Your task to perform on an android device: turn pop-ups off in chrome Image 0: 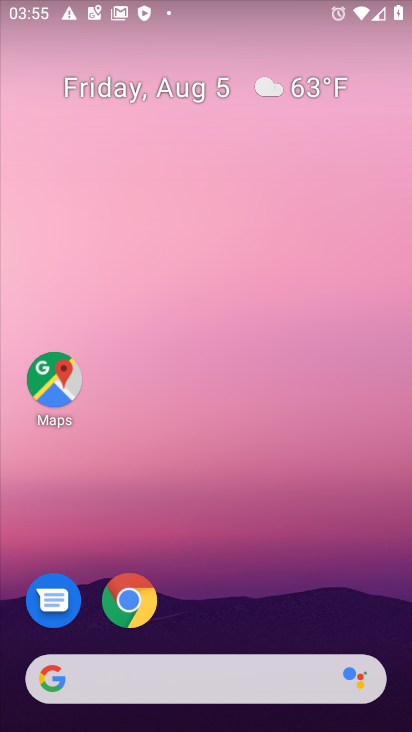
Step 0: click (127, 600)
Your task to perform on an android device: turn pop-ups off in chrome Image 1: 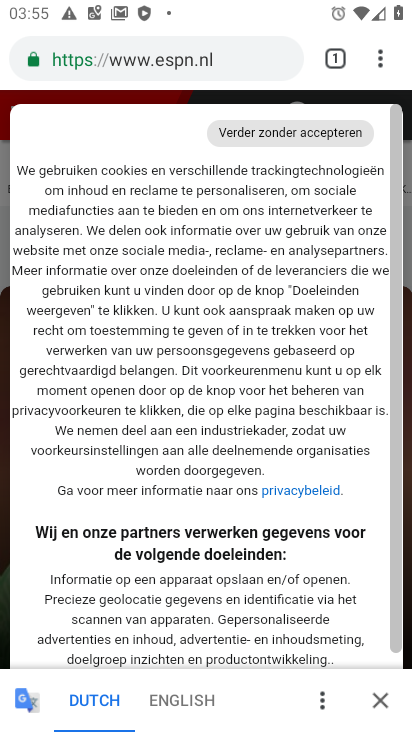
Step 1: click (380, 61)
Your task to perform on an android device: turn pop-ups off in chrome Image 2: 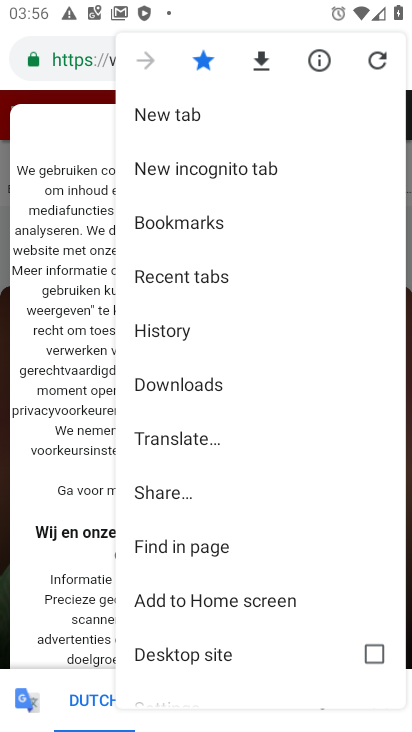
Step 2: drag from (196, 469) to (193, 381)
Your task to perform on an android device: turn pop-ups off in chrome Image 3: 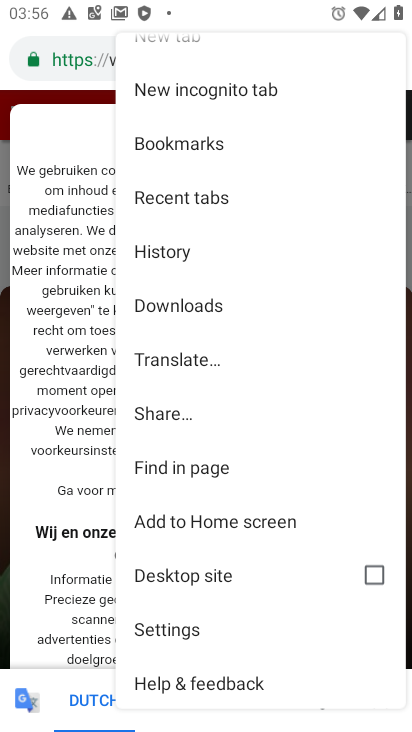
Step 3: click (166, 629)
Your task to perform on an android device: turn pop-ups off in chrome Image 4: 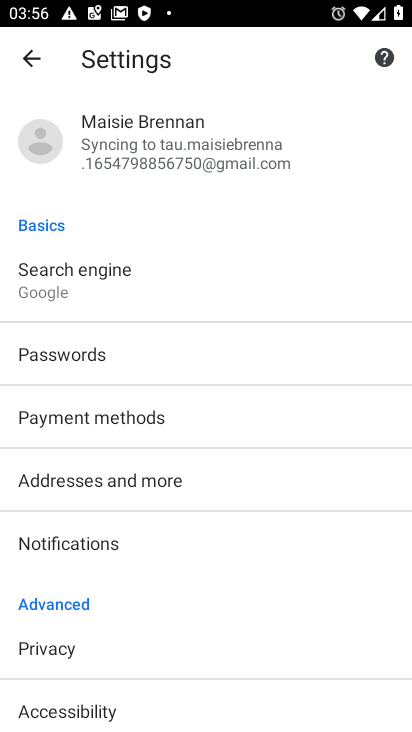
Step 4: drag from (78, 533) to (92, 416)
Your task to perform on an android device: turn pop-ups off in chrome Image 5: 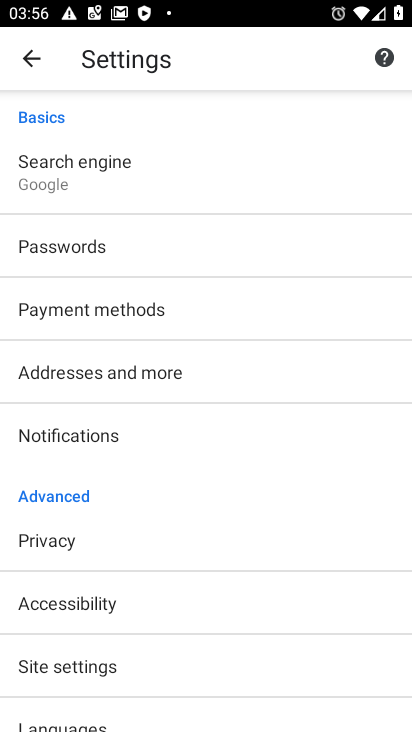
Step 5: drag from (72, 623) to (91, 483)
Your task to perform on an android device: turn pop-ups off in chrome Image 6: 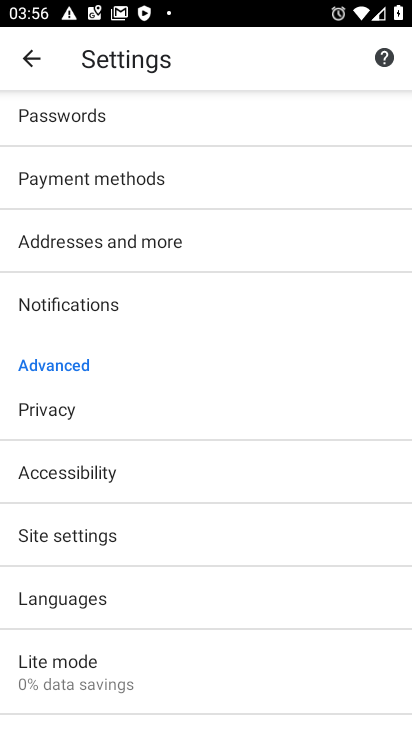
Step 6: click (70, 541)
Your task to perform on an android device: turn pop-ups off in chrome Image 7: 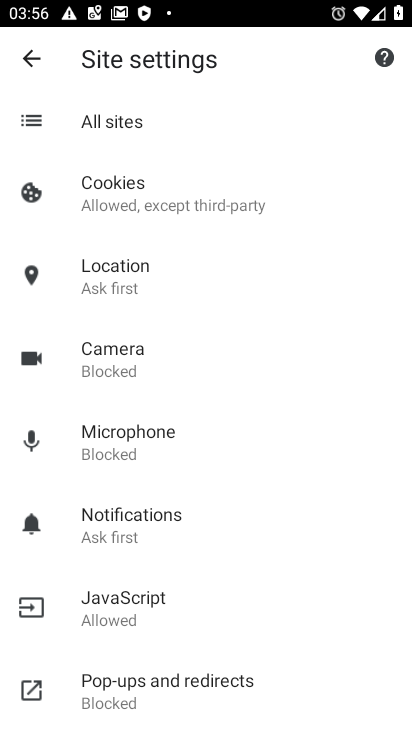
Step 7: drag from (122, 549) to (187, 433)
Your task to perform on an android device: turn pop-ups off in chrome Image 8: 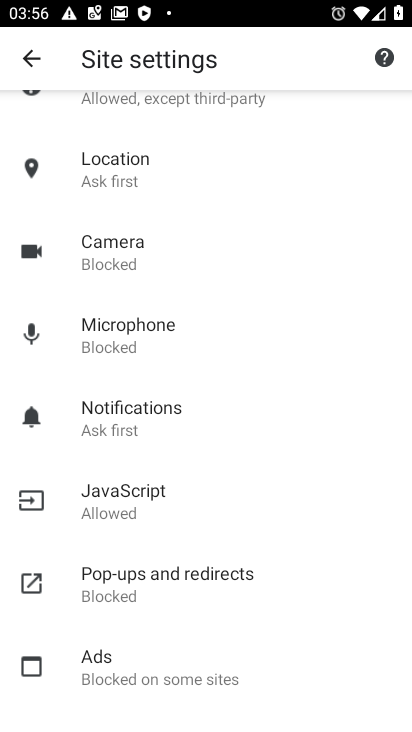
Step 8: click (155, 572)
Your task to perform on an android device: turn pop-ups off in chrome Image 9: 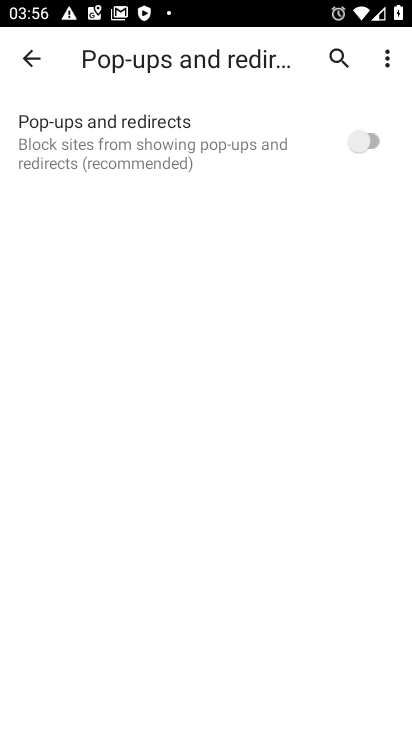
Step 9: task complete